Your task to perform on an android device: turn off location history Image 0: 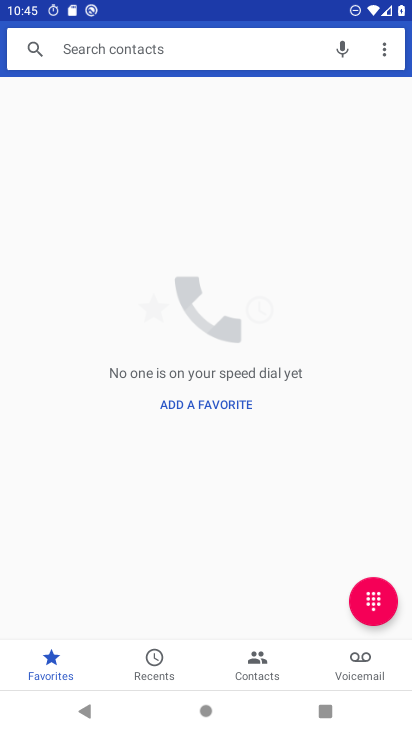
Step 0: press home button
Your task to perform on an android device: turn off location history Image 1: 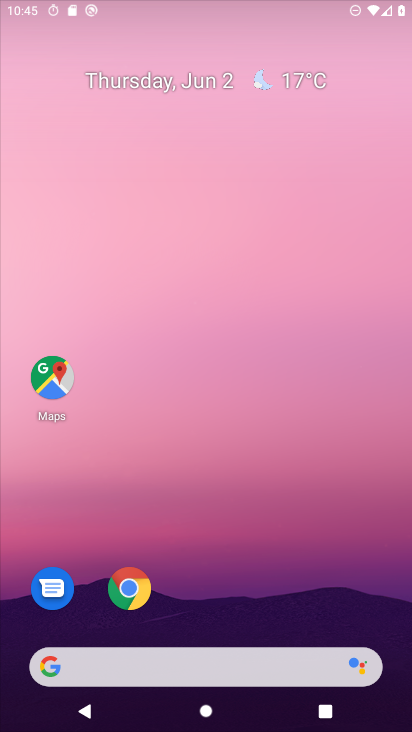
Step 1: drag from (199, 651) to (265, 222)
Your task to perform on an android device: turn off location history Image 2: 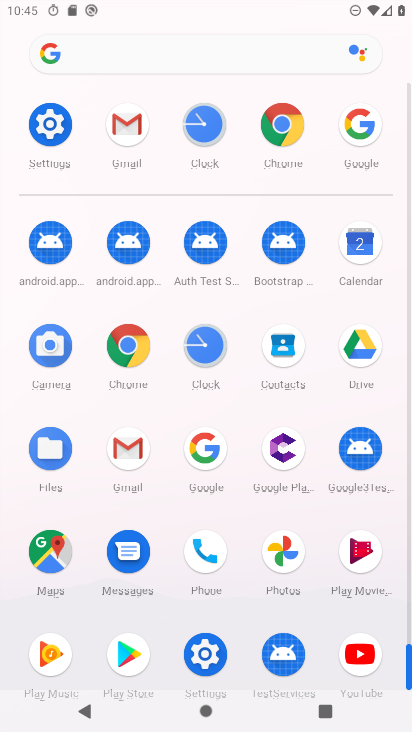
Step 2: click (62, 144)
Your task to perform on an android device: turn off location history Image 3: 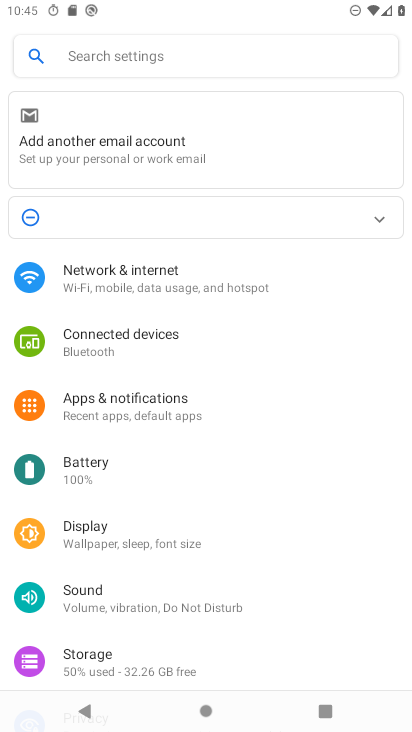
Step 3: drag from (190, 595) to (219, 457)
Your task to perform on an android device: turn off location history Image 4: 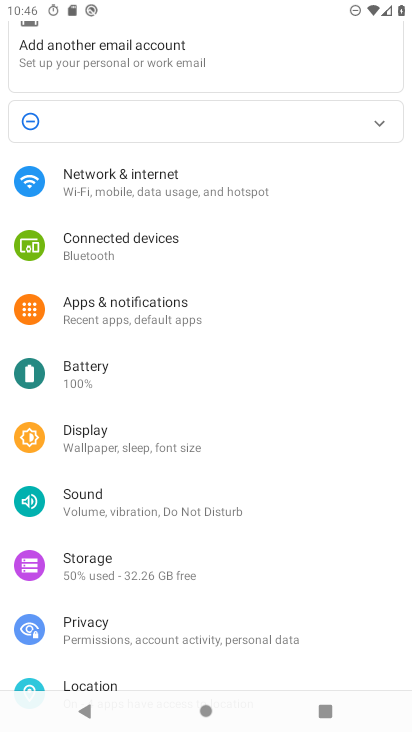
Step 4: drag from (176, 571) to (250, 182)
Your task to perform on an android device: turn off location history Image 5: 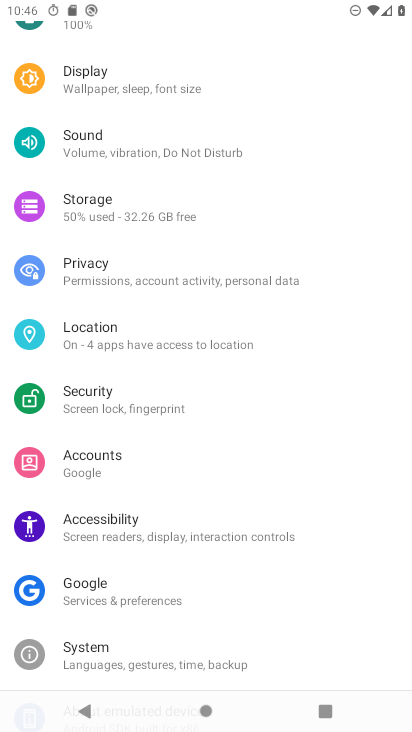
Step 5: click (182, 349)
Your task to perform on an android device: turn off location history Image 6: 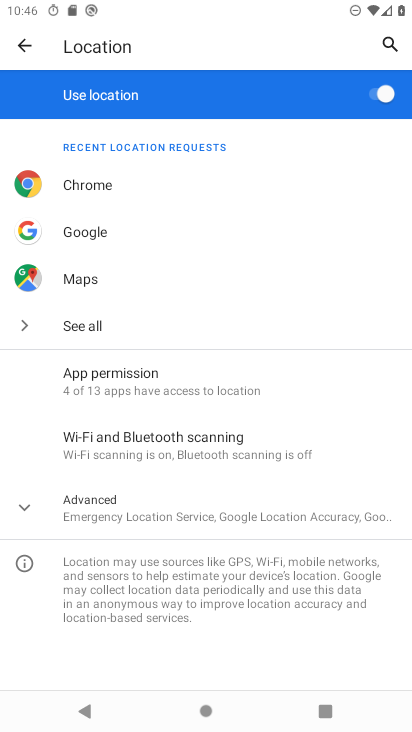
Step 6: click (189, 537)
Your task to perform on an android device: turn off location history Image 7: 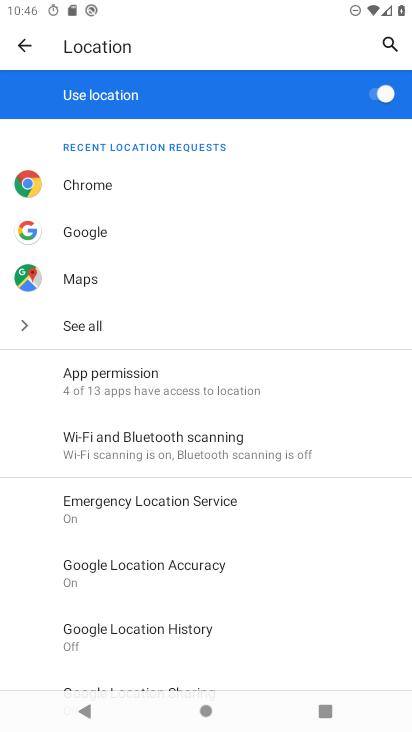
Step 7: click (215, 632)
Your task to perform on an android device: turn off location history Image 8: 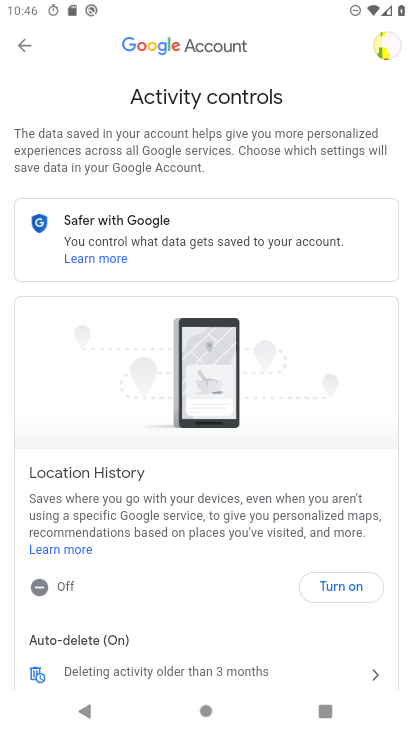
Step 8: task complete